Your task to perform on an android device: turn off location Image 0: 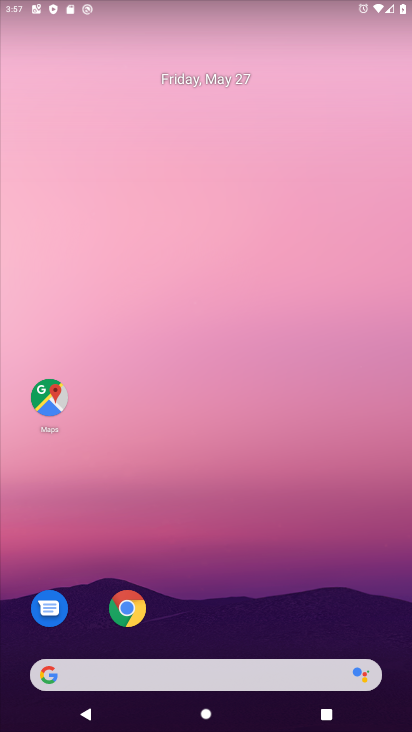
Step 0: drag from (213, 664) to (243, 133)
Your task to perform on an android device: turn off location Image 1: 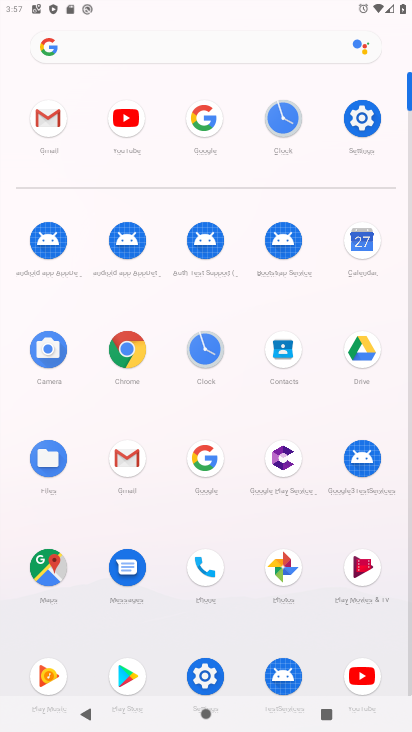
Step 1: click (360, 125)
Your task to perform on an android device: turn off location Image 2: 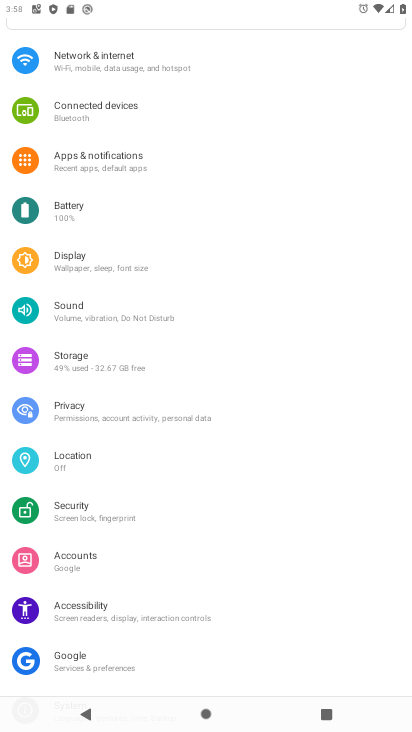
Step 2: click (74, 470)
Your task to perform on an android device: turn off location Image 3: 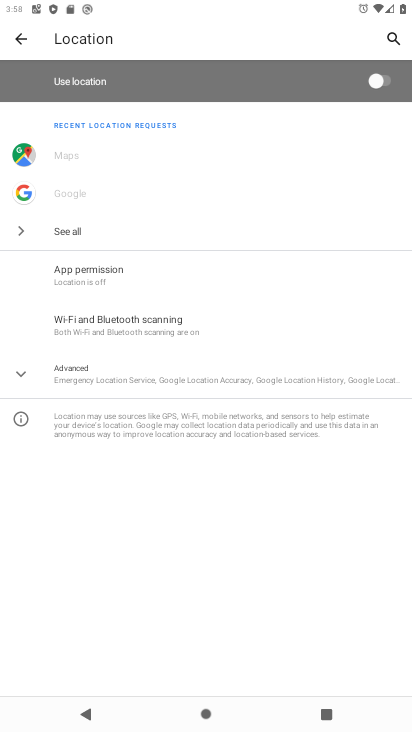
Step 3: task complete